Your task to perform on an android device: open app "ColorNote Notepad Notes" (install if not already installed) Image 0: 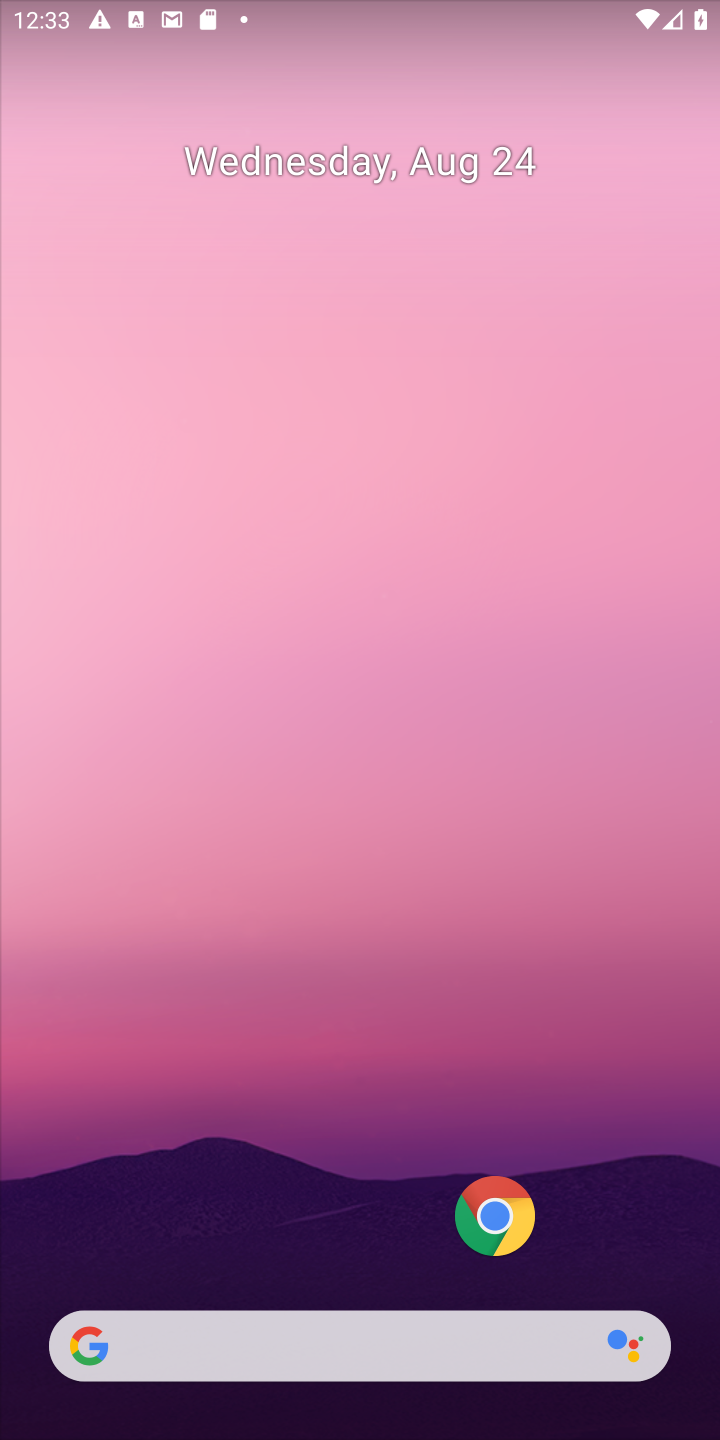
Step 0: drag from (285, 1073) to (402, 21)
Your task to perform on an android device: open app "ColorNote Notepad Notes" (install if not already installed) Image 1: 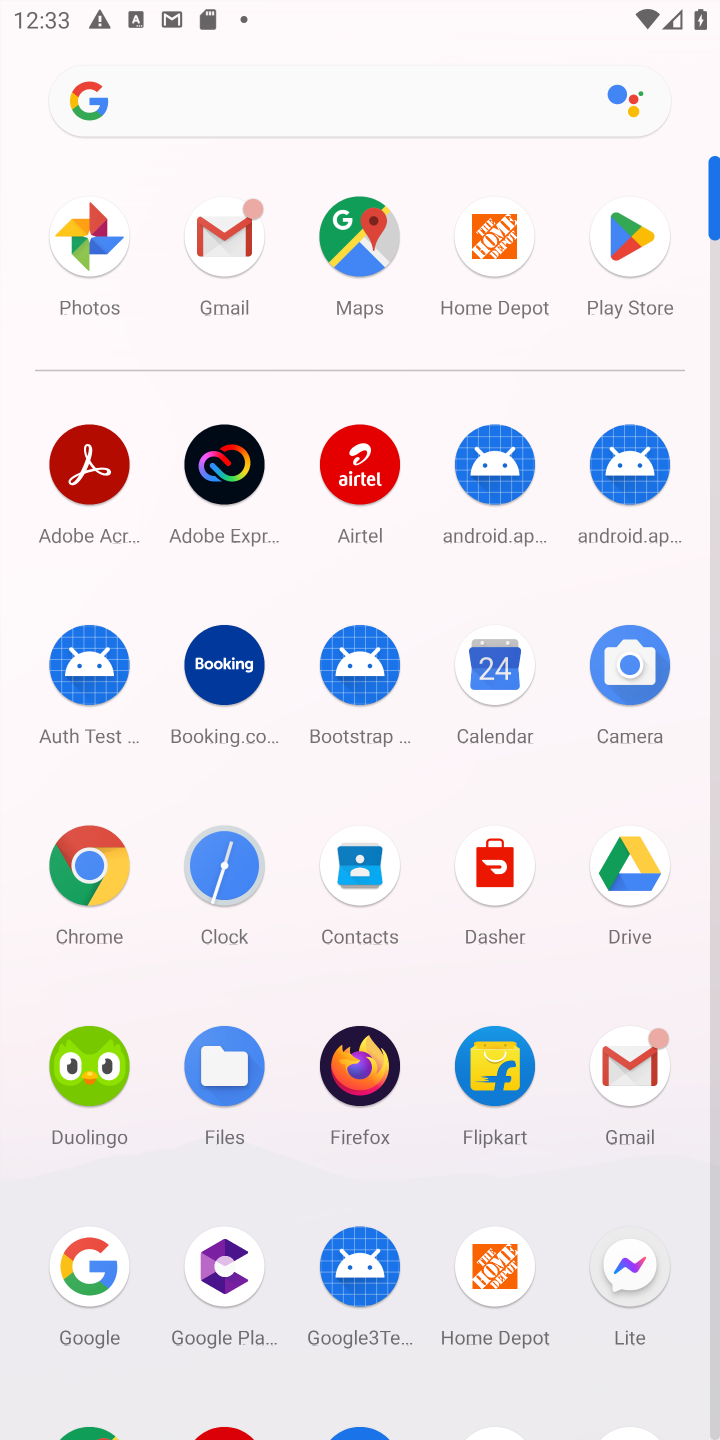
Step 1: click (627, 241)
Your task to perform on an android device: open app "ColorNote Notepad Notes" (install if not already installed) Image 2: 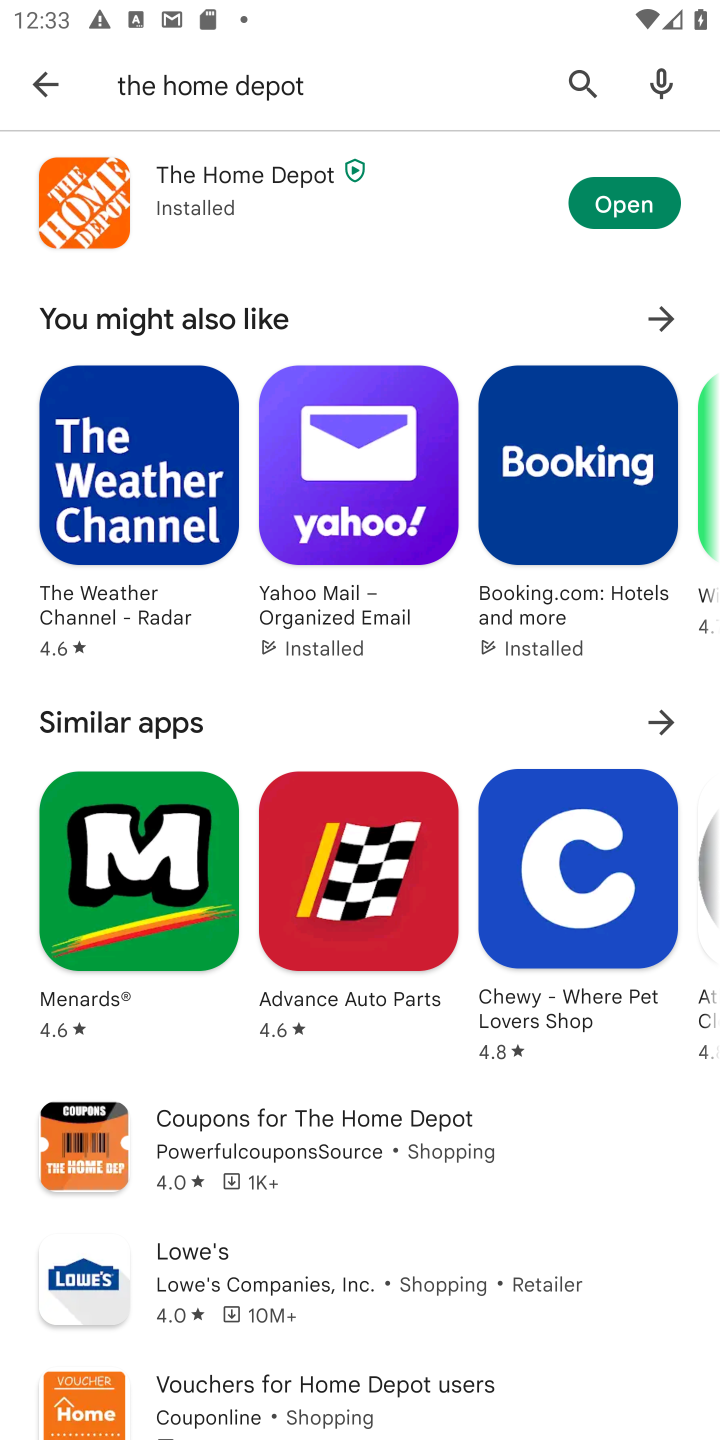
Step 2: press back button
Your task to perform on an android device: open app "ColorNote Notepad Notes" (install if not already installed) Image 3: 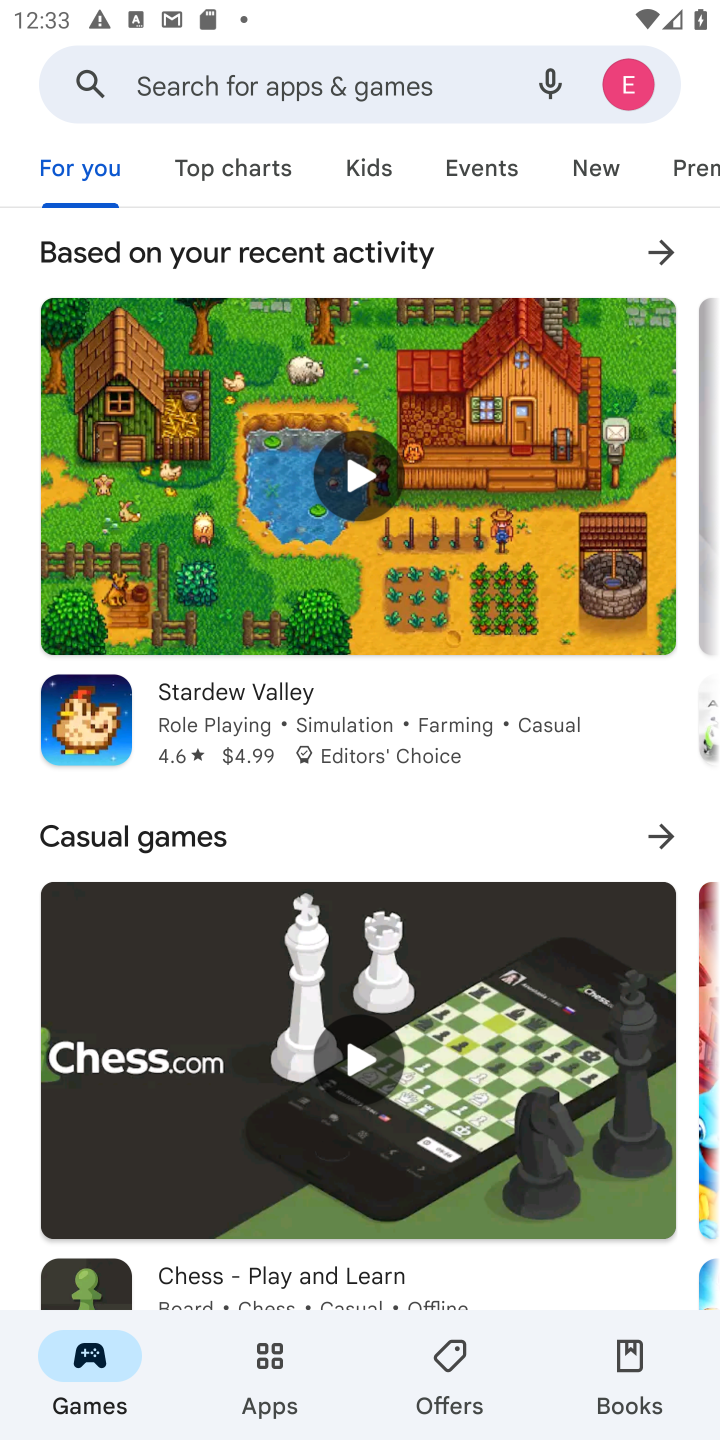
Step 3: click (398, 91)
Your task to perform on an android device: open app "ColorNote Notepad Notes" (install if not already installed) Image 4: 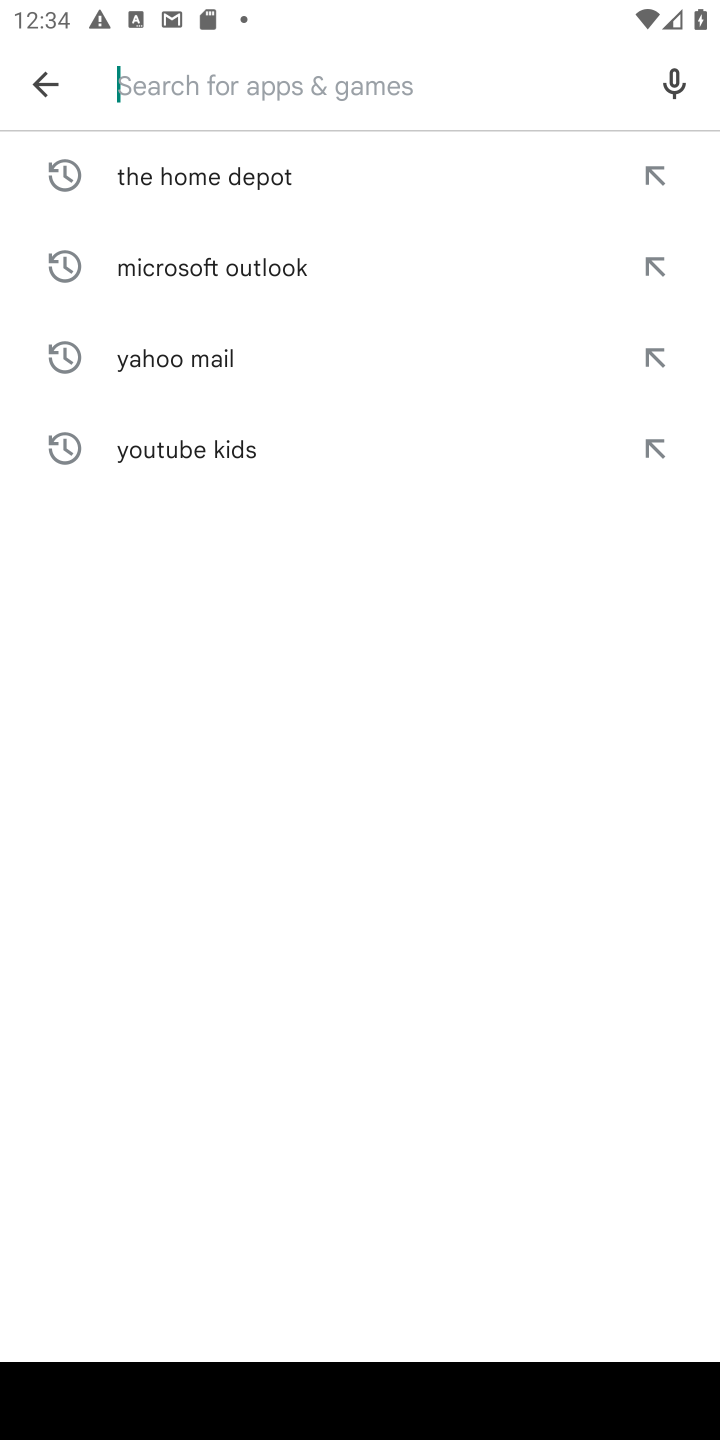
Step 4: type "ColorNote Notepad Notes"
Your task to perform on an android device: open app "ColorNote Notepad Notes" (install if not already installed) Image 5: 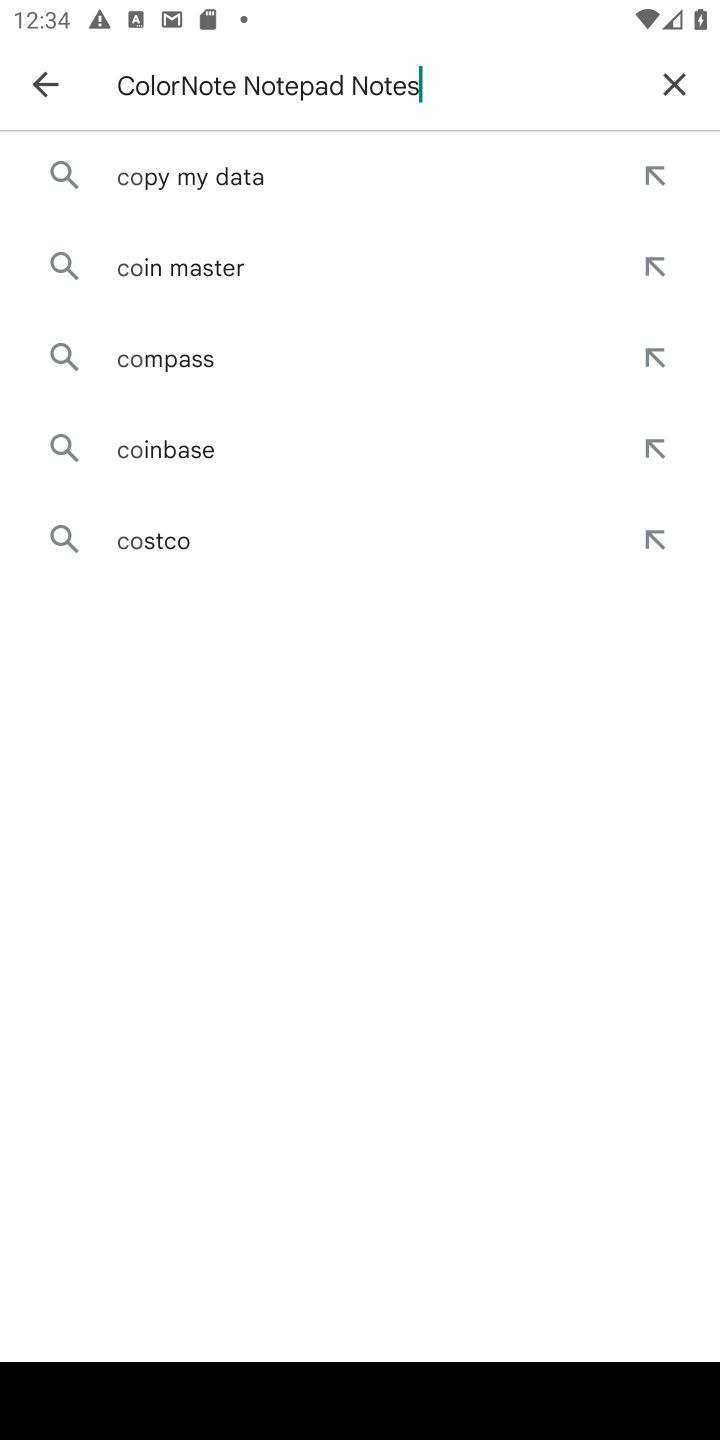
Step 5: type ""
Your task to perform on an android device: open app "ColorNote Notepad Notes" (install if not already installed) Image 6: 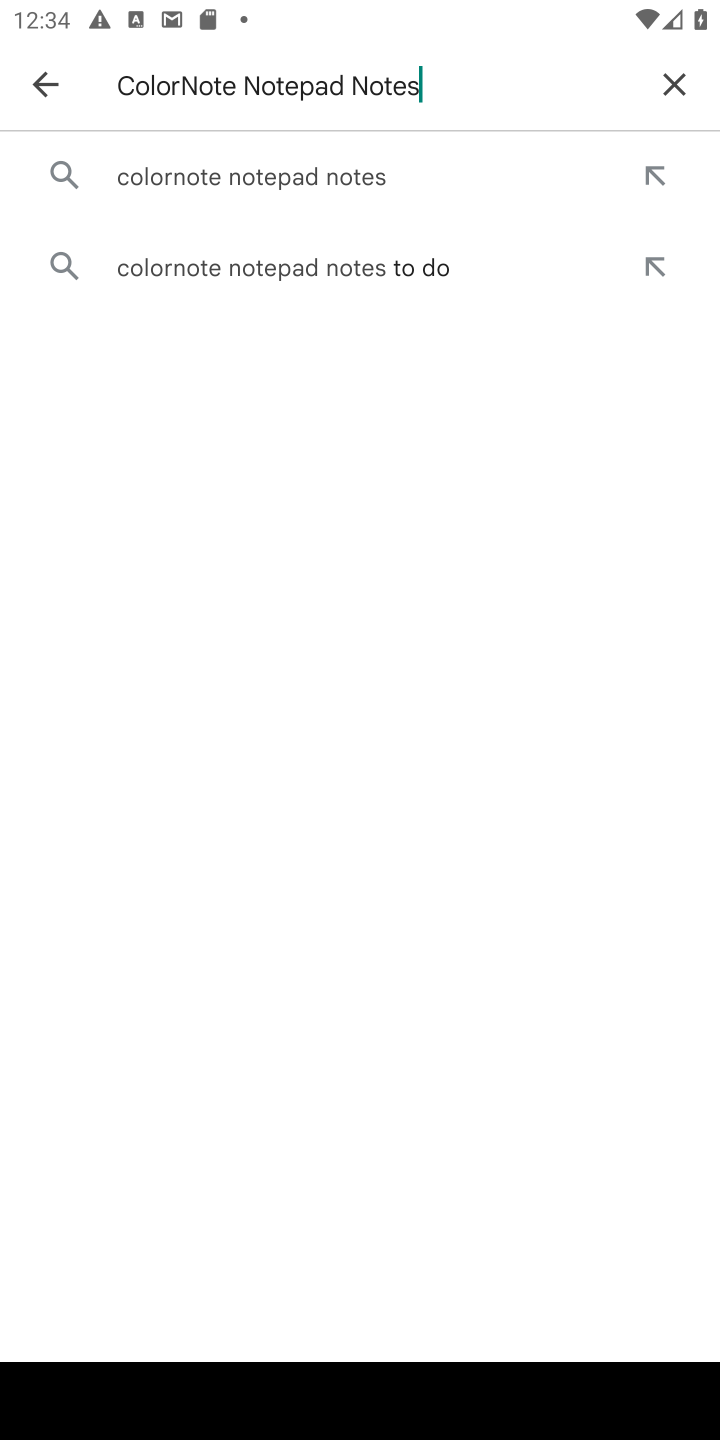
Step 6: click (340, 183)
Your task to perform on an android device: open app "ColorNote Notepad Notes" (install if not already installed) Image 7: 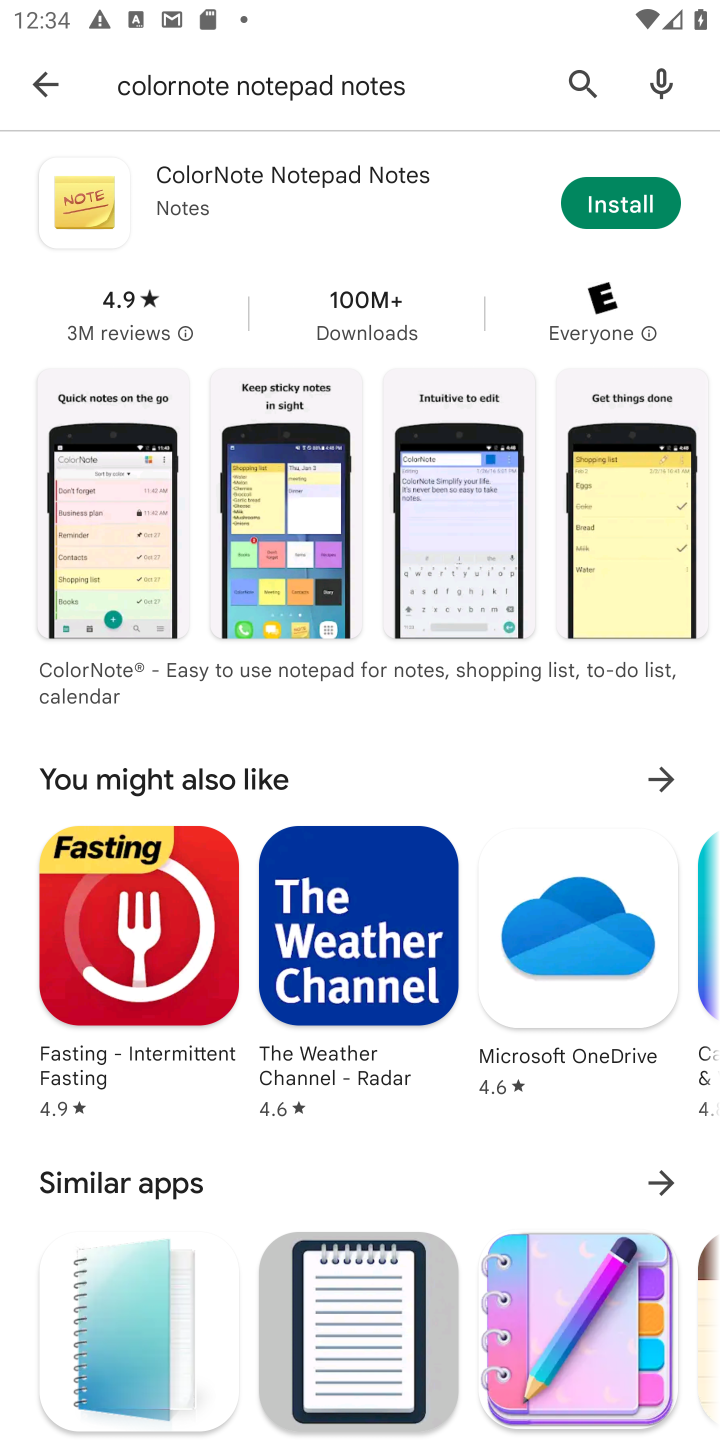
Step 7: click (611, 212)
Your task to perform on an android device: open app "ColorNote Notepad Notes" (install if not already installed) Image 8: 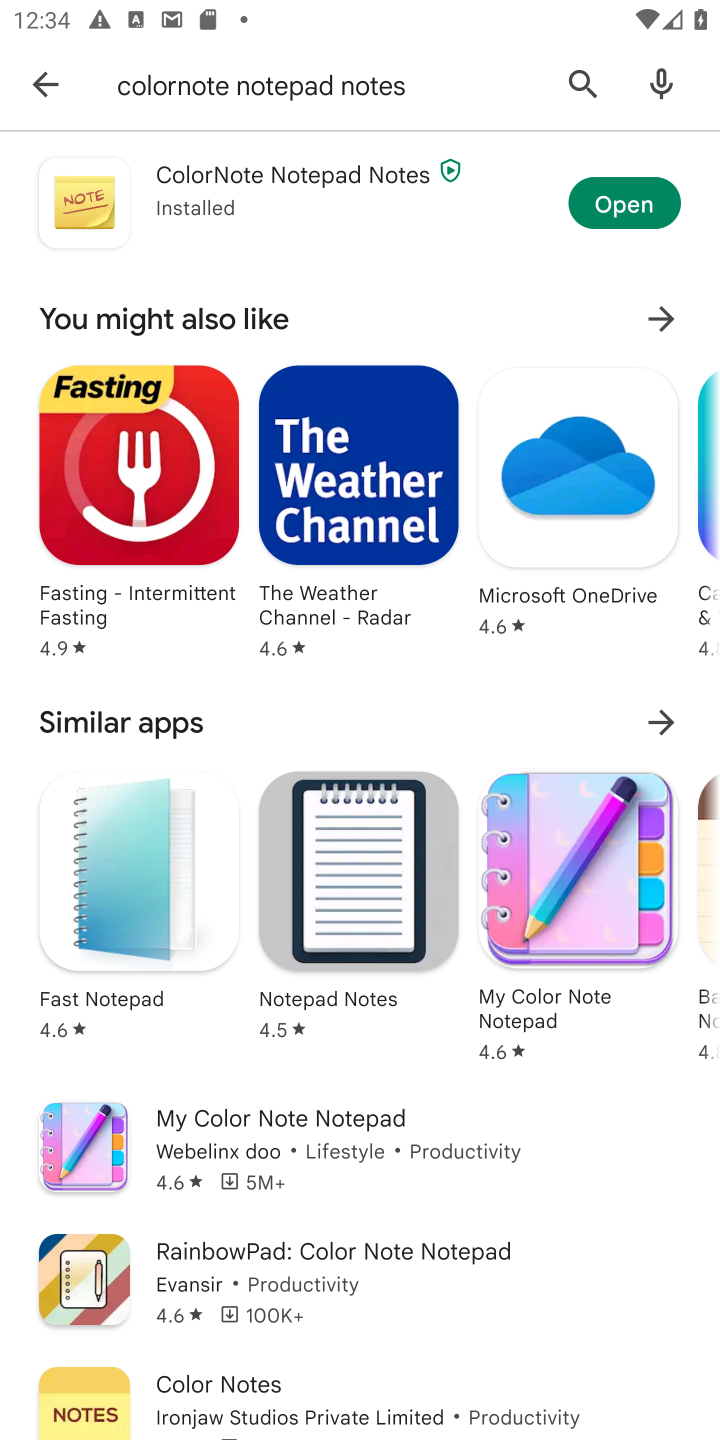
Step 8: click (655, 204)
Your task to perform on an android device: open app "ColorNote Notepad Notes" (install if not already installed) Image 9: 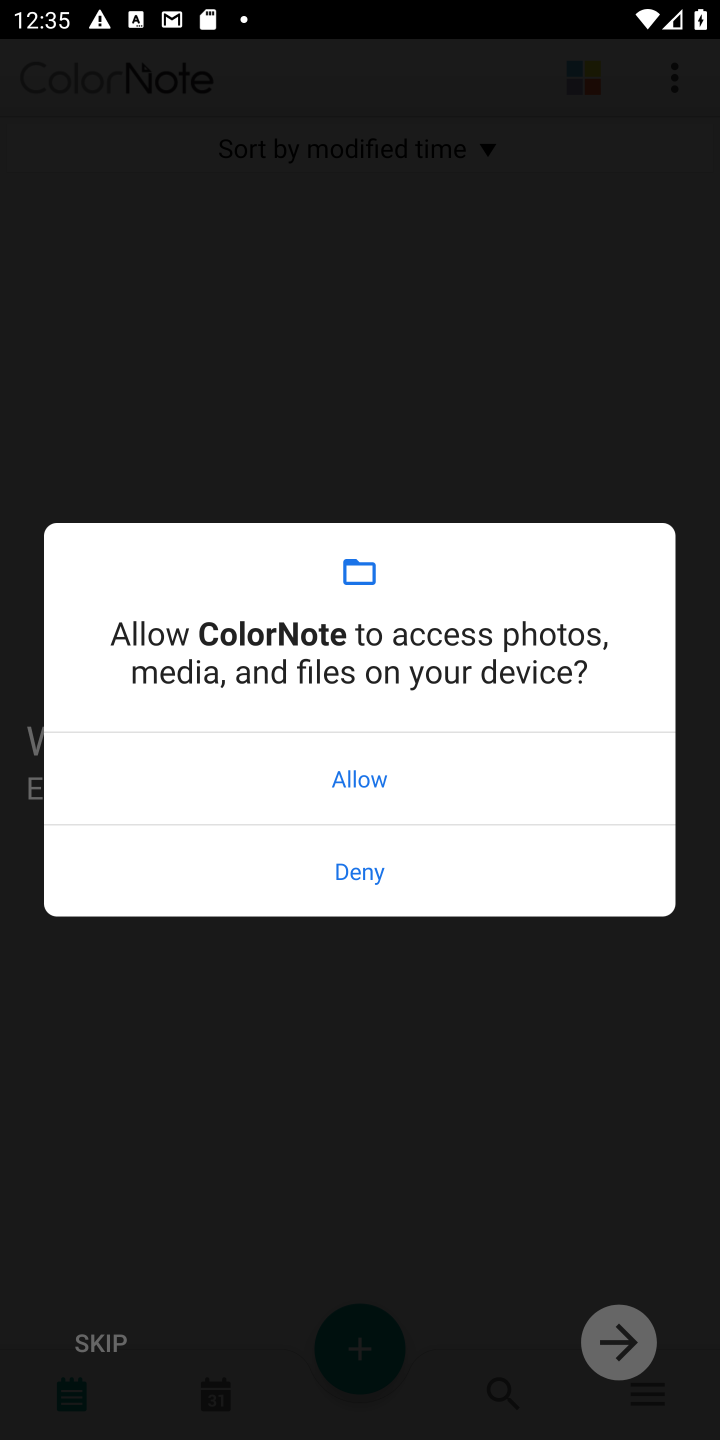
Step 9: click (355, 773)
Your task to perform on an android device: open app "ColorNote Notepad Notes" (install if not already installed) Image 10: 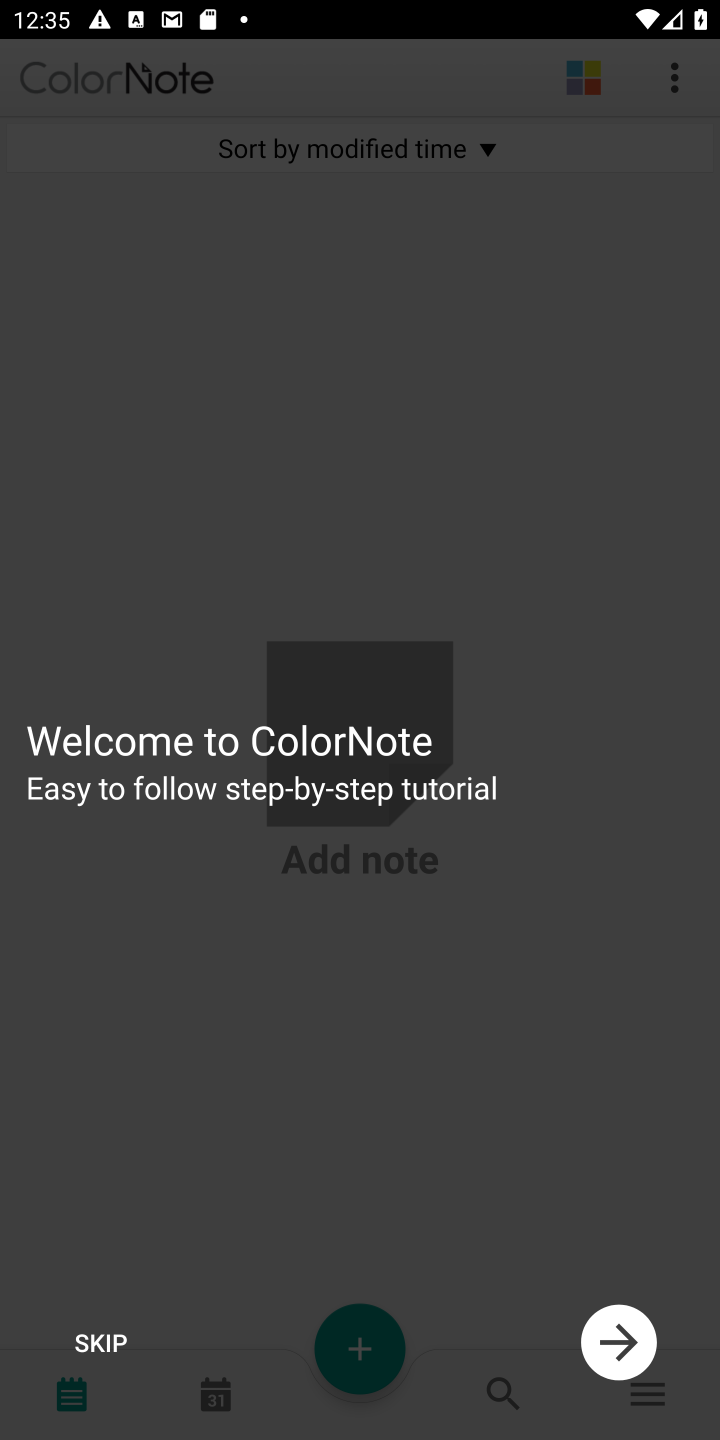
Step 10: click (74, 1355)
Your task to perform on an android device: open app "ColorNote Notepad Notes" (install if not already installed) Image 11: 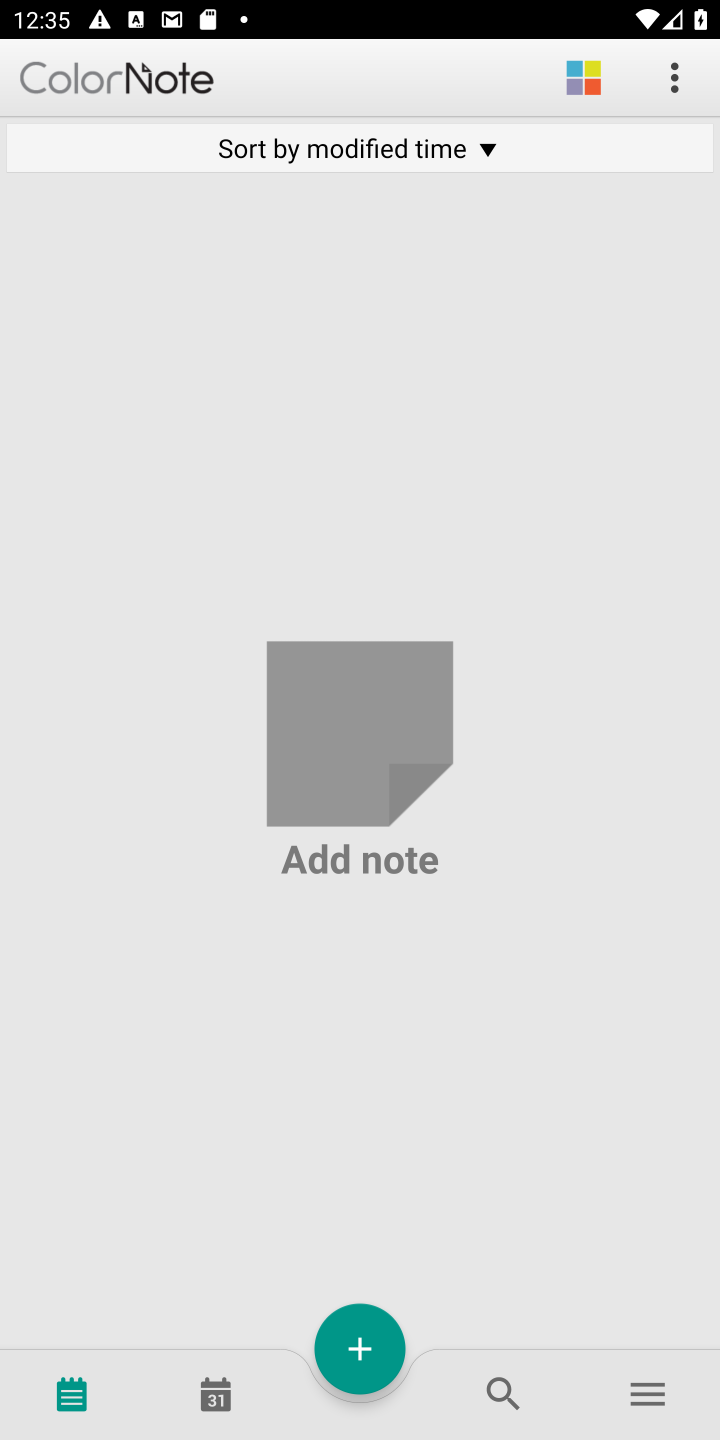
Step 11: task complete